Your task to perform on an android device: Go to Yahoo.com Image 0: 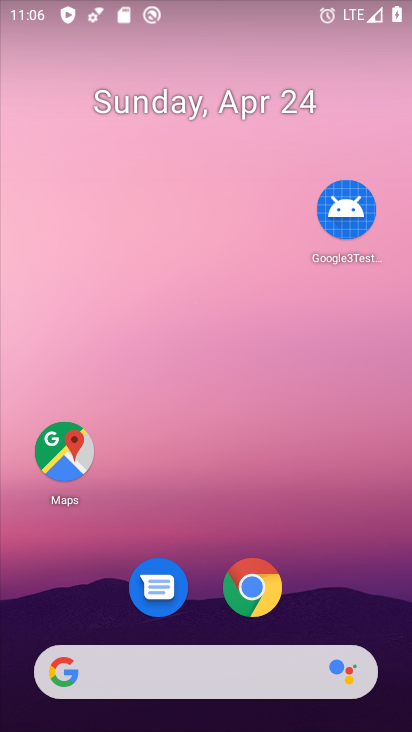
Step 0: drag from (338, 526) to (294, 93)
Your task to perform on an android device: Go to Yahoo.com Image 1: 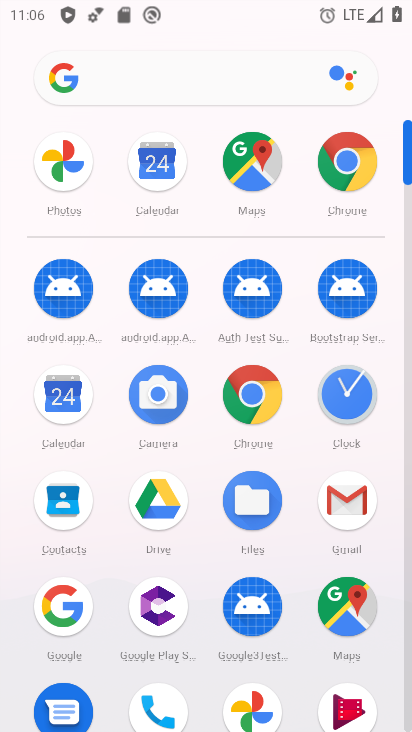
Step 1: click (261, 413)
Your task to perform on an android device: Go to Yahoo.com Image 2: 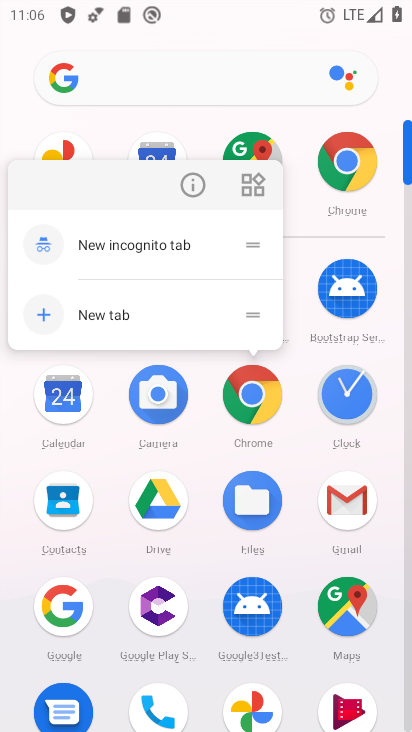
Step 2: click (262, 412)
Your task to perform on an android device: Go to Yahoo.com Image 3: 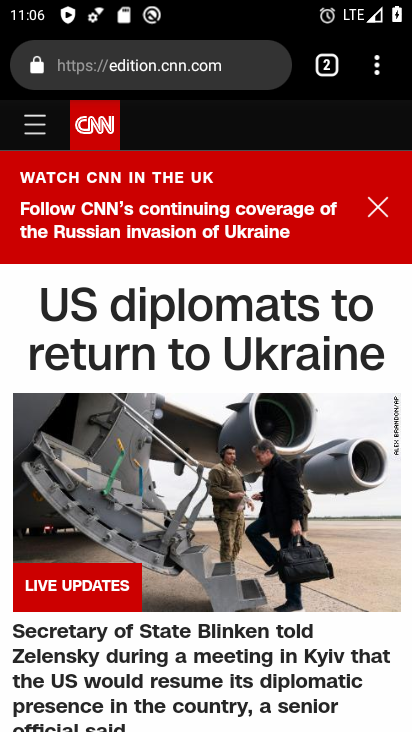
Step 3: click (210, 55)
Your task to perform on an android device: Go to Yahoo.com Image 4: 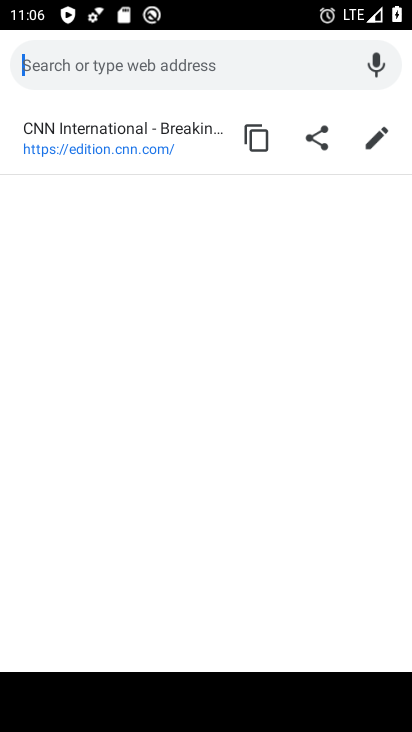
Step 4: type "yahoo.com"
Your task to perform on an android device: Go to Yahoo.com Image 5: 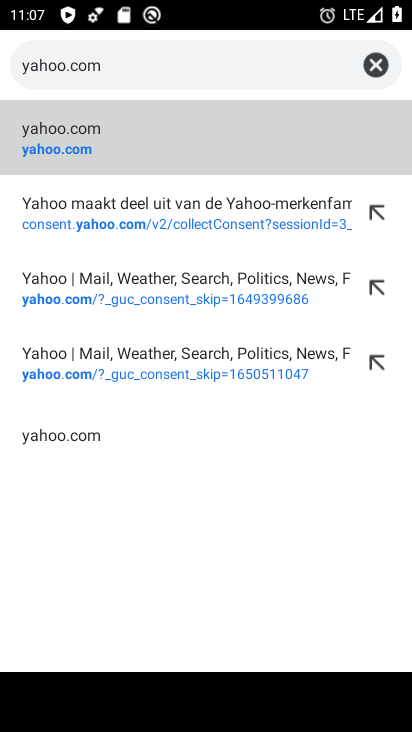
Step 5: click (69, 140)
Your task to perform on an android device: Go to Yahoo.com Image 6: 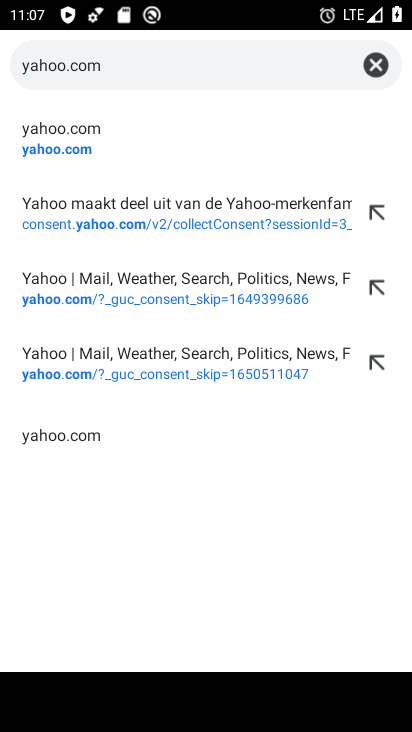
Step 6: click (70, 146)
Your task to perform on an android device: Go to Yahoo.com Image 7: 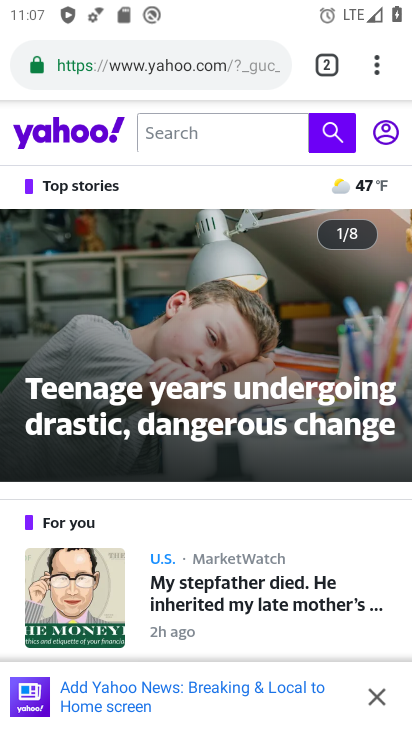
Step 7: task complete